Your task to perform on an android device: Go to Amazon Image 0: 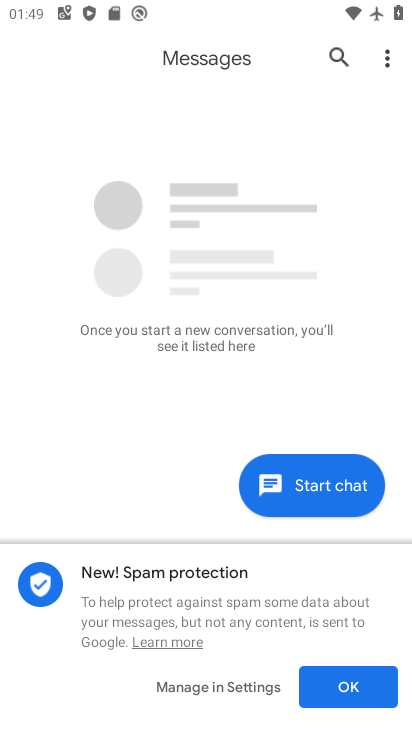
Step 0: press home button
Your task to perform on an android device: Go to Amazon Image 1: 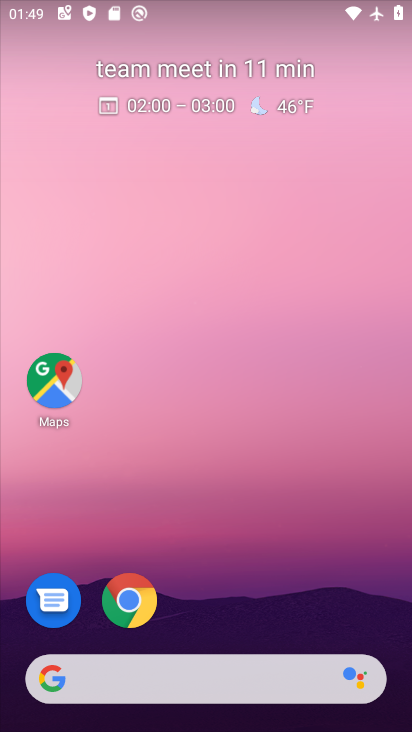
Step 1: click (144, 598)
Your task to perform on an android device: Go to Amazon Image 2: 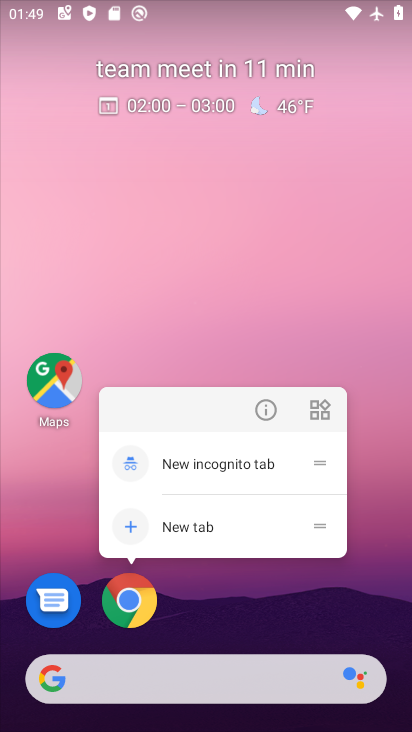
Step 2: click (127, 598)
Your task to perform on an android device: Go to Amazon Image 3: 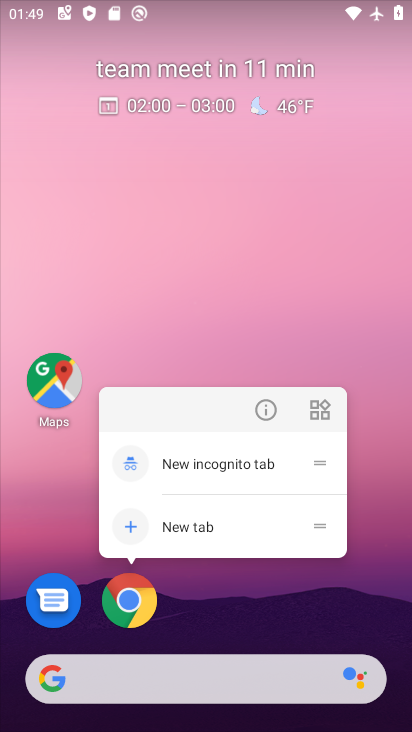
Step 3: click (77, 602)
Your task to perform on an android device: Go to Amazon Image 4: 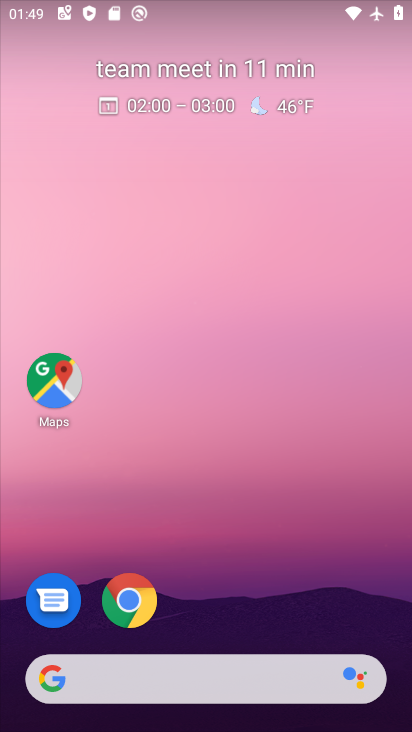
Step 4: click (116, 597)
Your task to perform on an android device: Go to Amazon Image 5: 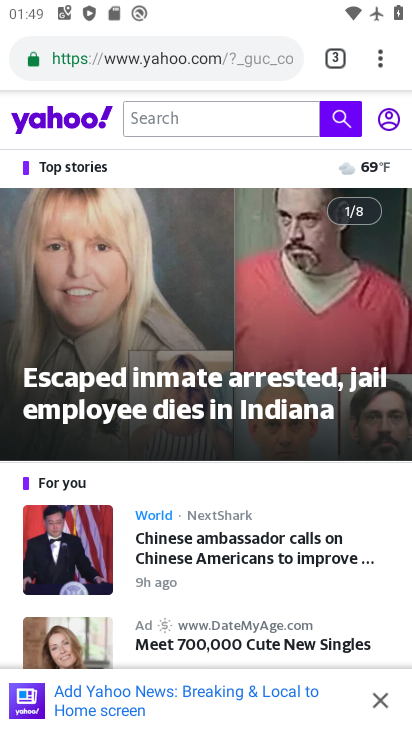
Step 5: click (337, 65)
Your task to perform on an android device: Go to Amazon Image 6: 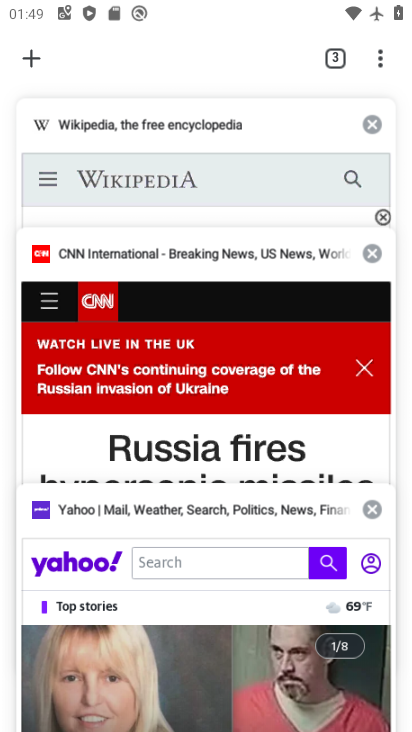
Step 6: click (37, 49)
Your task to perform on an android device: Go to Amazon Image 7: 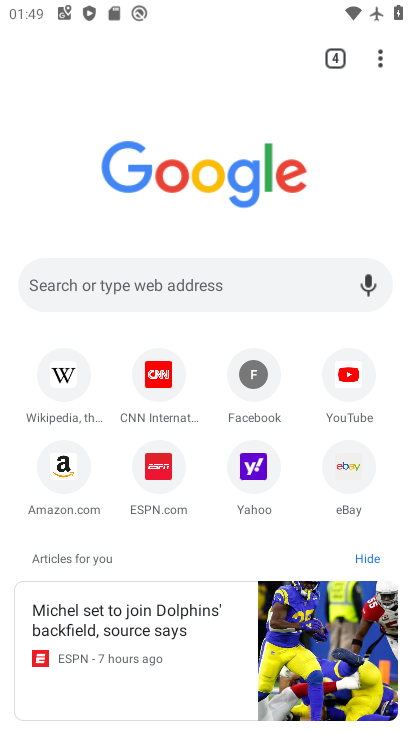
Step 7: click (66, 461)
Your task to perform on an android device: Go to Amazon Image 8: 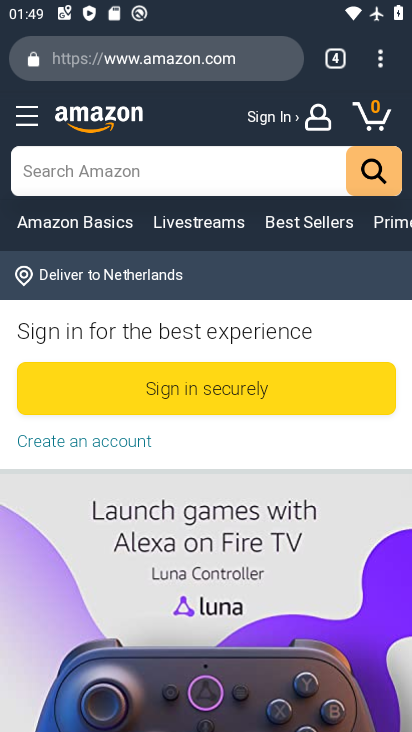
Step 8: task complete